Your task to perform on an android device: check battery use Image 0: 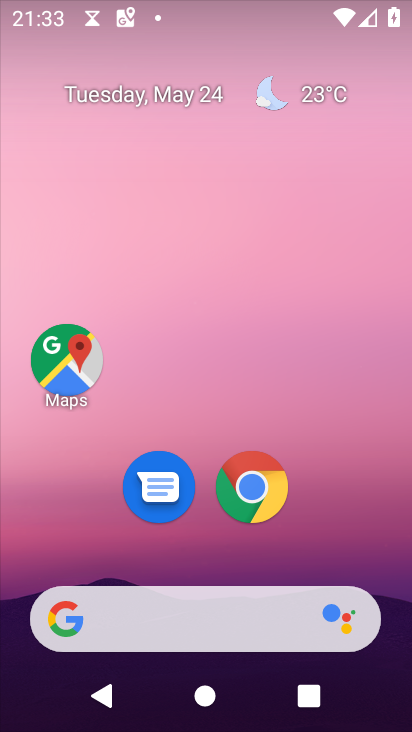
Step 0: press home button
Your task to perform on an android device: check battery use Image 1: 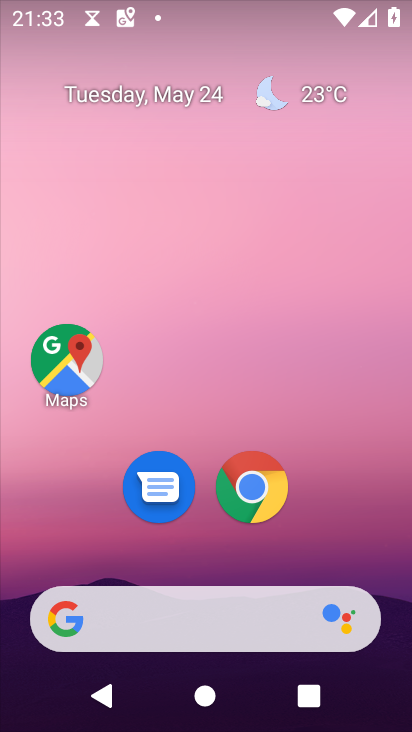
Step 1: drag from (333, 538) to (355, 8)
Your task to perform on an android device: check battery use Image 2: 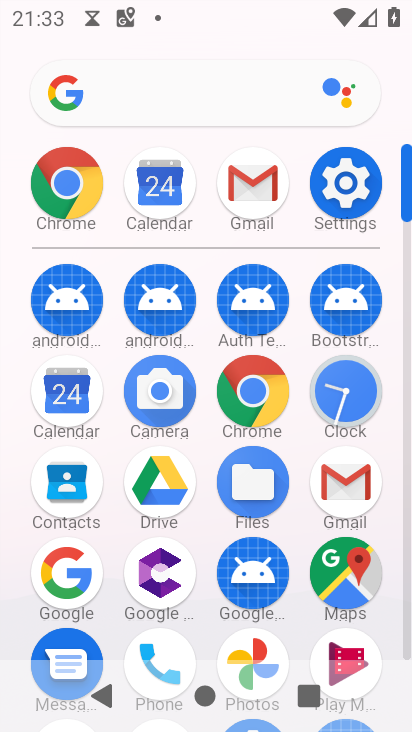
Step 2: click (345, 172)
Your task to perform on an android device: check battery use Image 3: 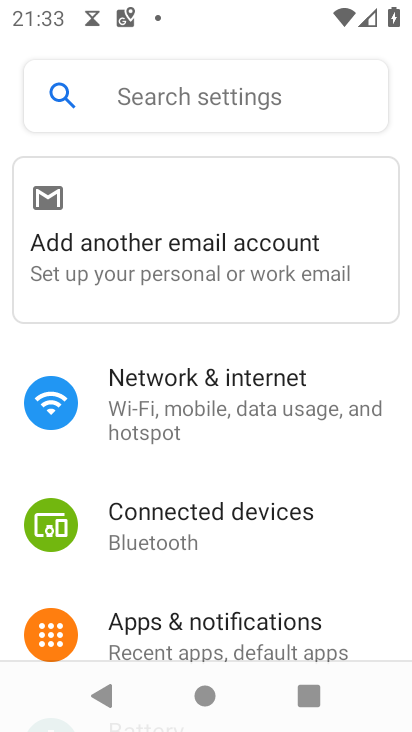
Step 3: drag from (313, 577) to (260, 201)
Your task to perform on an android device: check battery use Image 4: 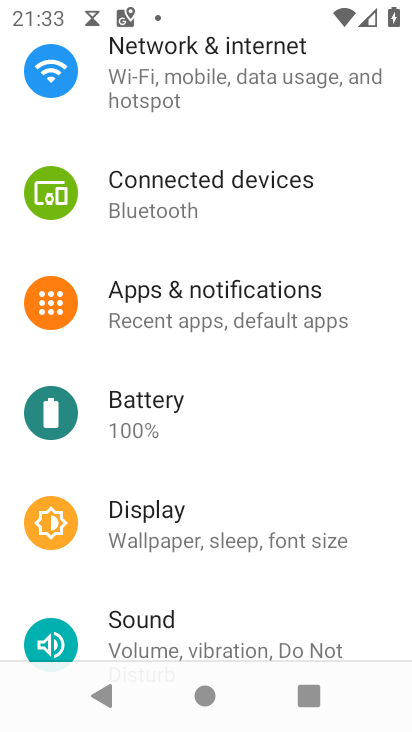
Step 4: click (187, 421)
Your task to perform on an android device: check battery use Image 5: 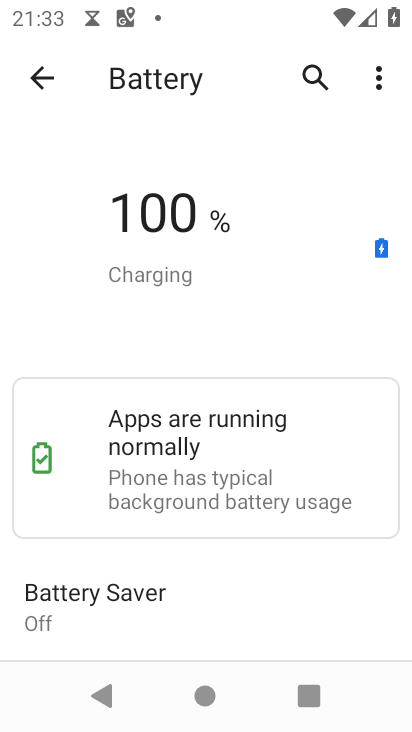
Step 5: task complete